Your task to perform on an android device: Open Google Maps Image 0: 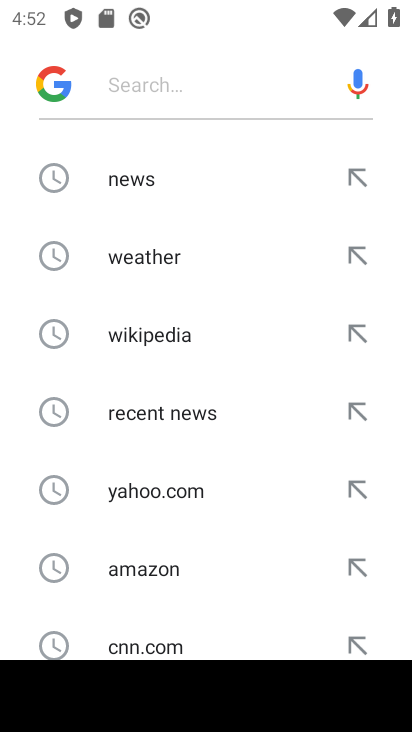
Step 0: press home button
Your task to perform on an android device: Open Google Maps Image 1: 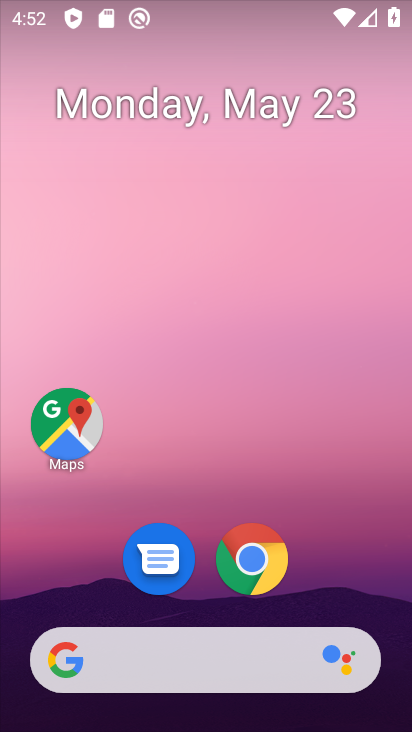
Step 1: drag from (263, 658) to (266, 66)
Your task to perform on an android device: Open Google Maps Image 2: 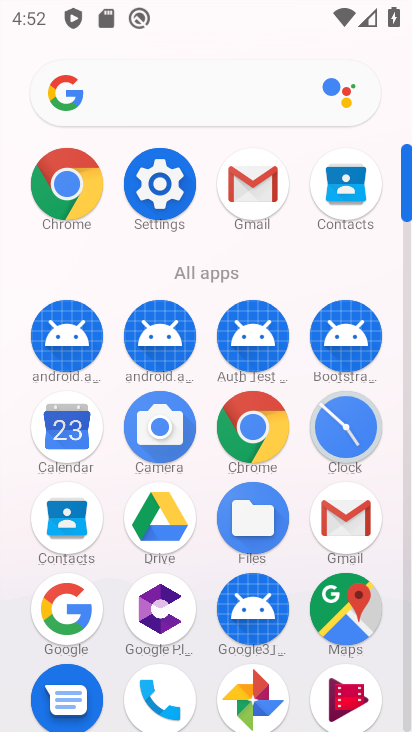
Step 2: click (347, 598)
Your task to perform on an android device: Open Google Maps Image 3: 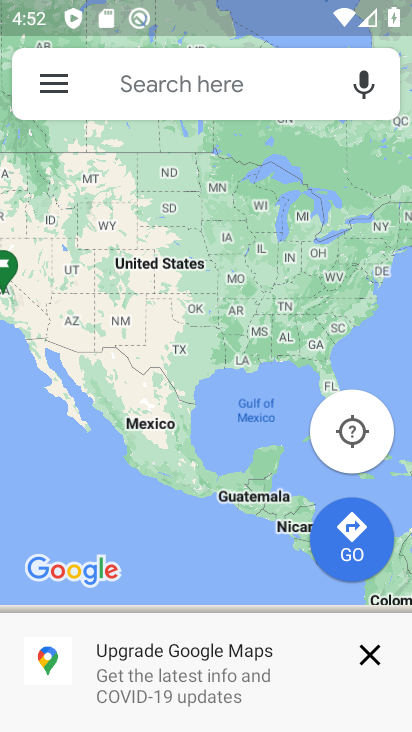
Step 3: task complete